Your task to perform on an android device: Search for seafood restaurants on Google Maps Image 0: 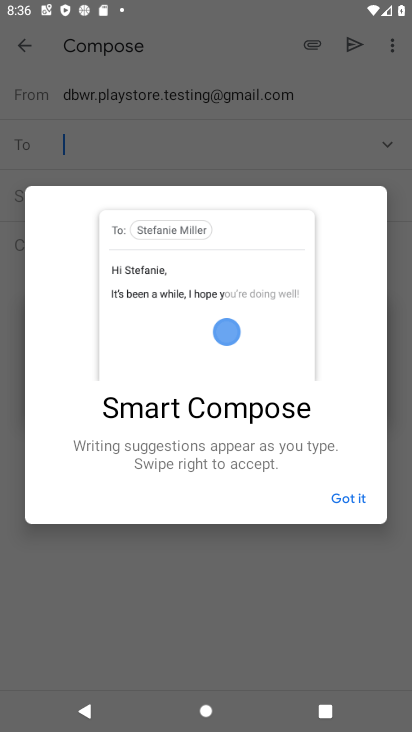
Step 0: press home button
Your task to perform on an android device: Search for seafood restaurants on Google Maps Image 1: 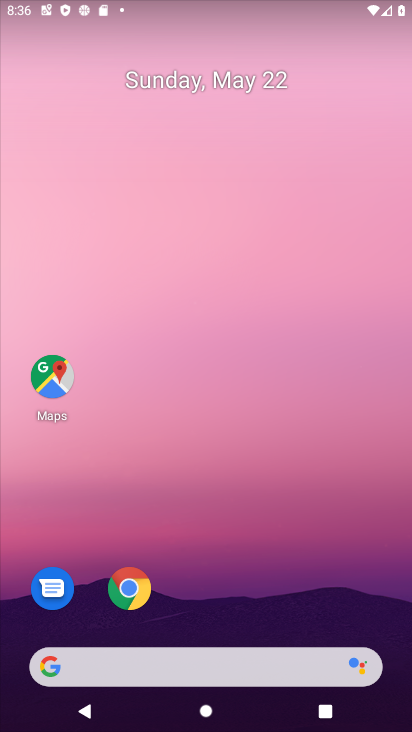
Step 1: click (52, 381)
Your task to perform on an android device: Search for seafood restaurants on Google Maps Image 2: 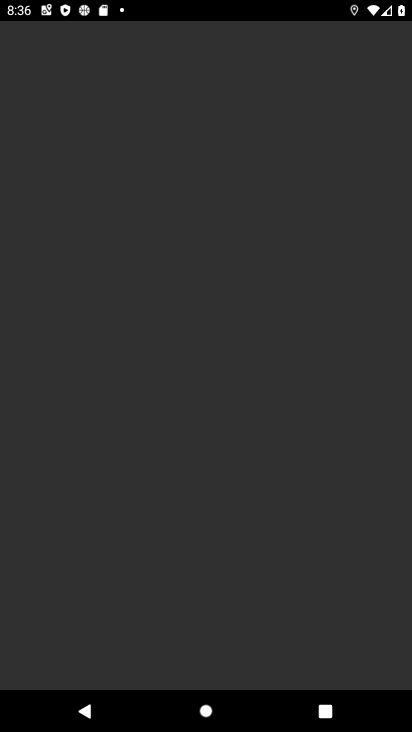
Step 2: click (49, 382)
Your task to perform on an android device: Search for seafood restaurants on Google Maps Image 3: 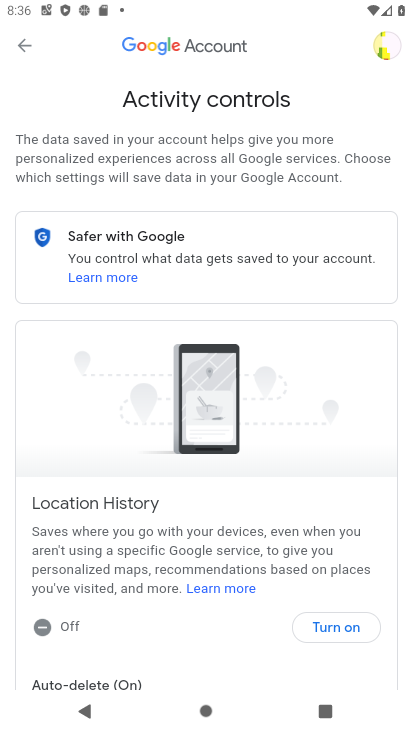
Step 3: click (30, 45)
Your task to perform on an android device: Search for seafood restaurants on Google Maps Image 4: 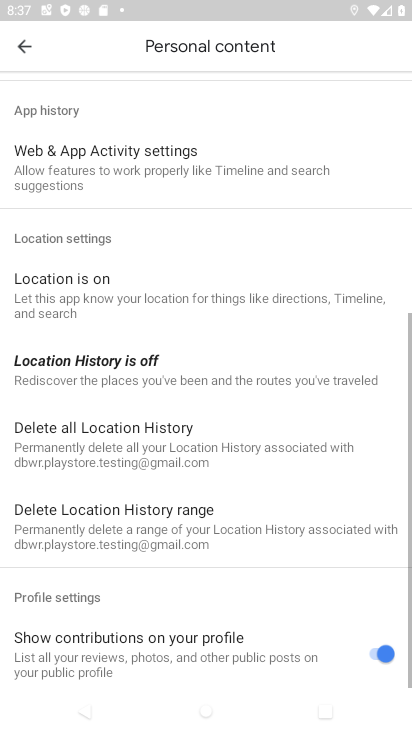
Step 4: click (19, 45)
Your task to perform on an android device: Search for seafood restaurants on Google Maps Image 5: 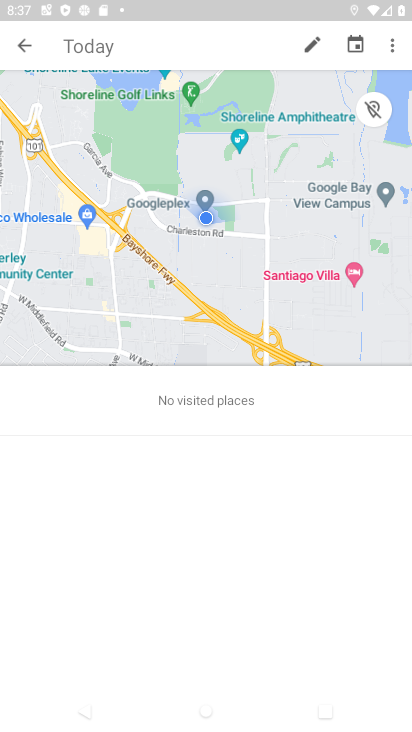
Step 5: click (35, 39)
Your task to perform on an android device: Search for seafood restaurants on Google Maps Image 6: 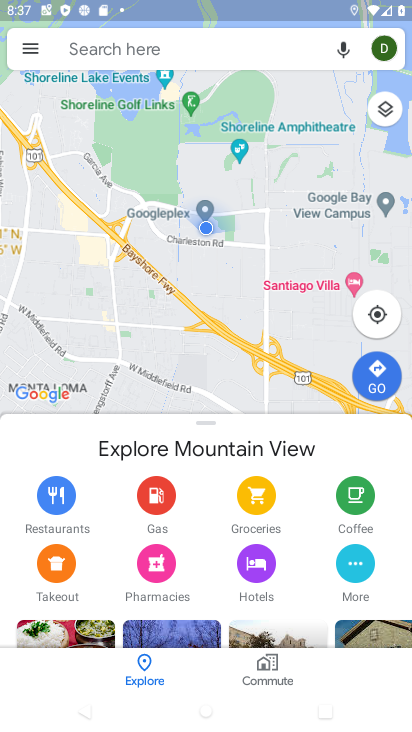
Step 6: click (139, 50)
Your task to perform on an android device: Search for seafood restaurants on Google Maps Image 7: 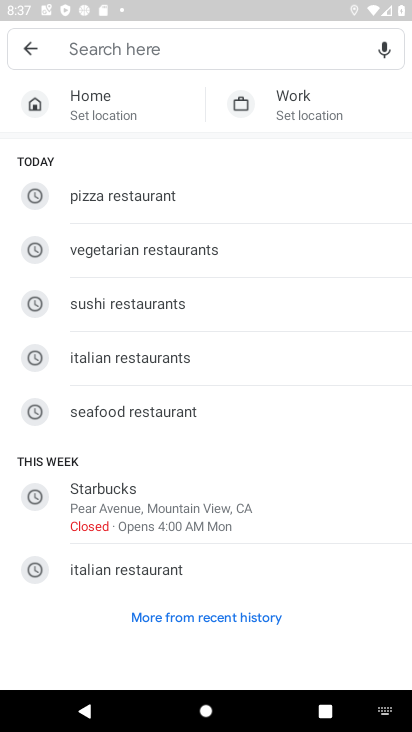
Step 7: click (136, 407)
Your task to perform on an android device: Search for seafood restaurants on Google Maps Image 8: 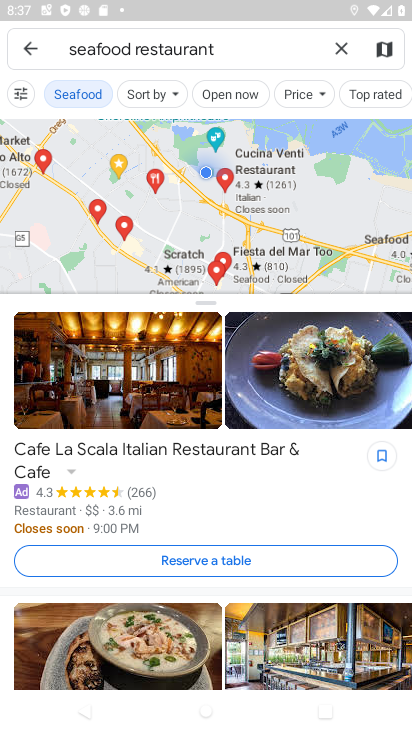
Step 8: task complete